Your task to perform on an android device: toggle notifications settings in the gmail app Image 0: 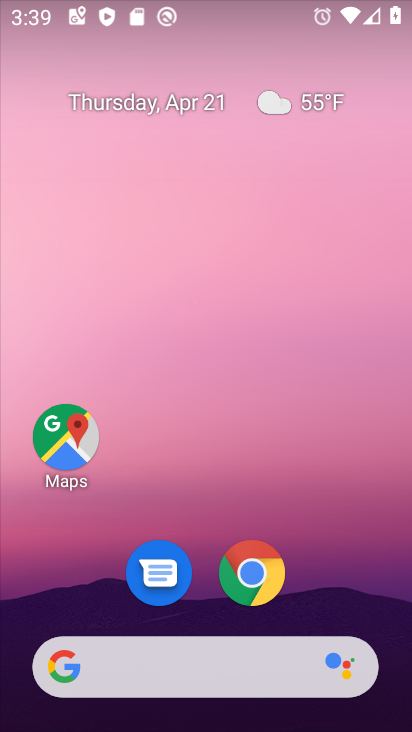
Step 0: drag from (389, 607) to (350, 169)
Your task to perform on an android device: toggle notifications settings in the gmail app Image 1: 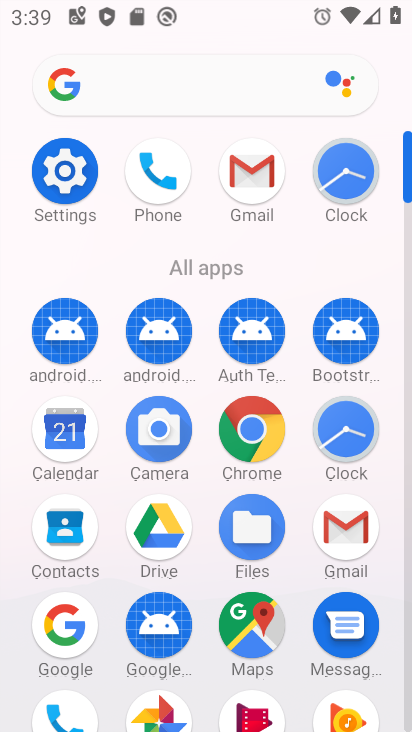
Step 1: click (408, 710)
Your task to perform on an android device: toggle notifications settings in the gmail app Image 2: 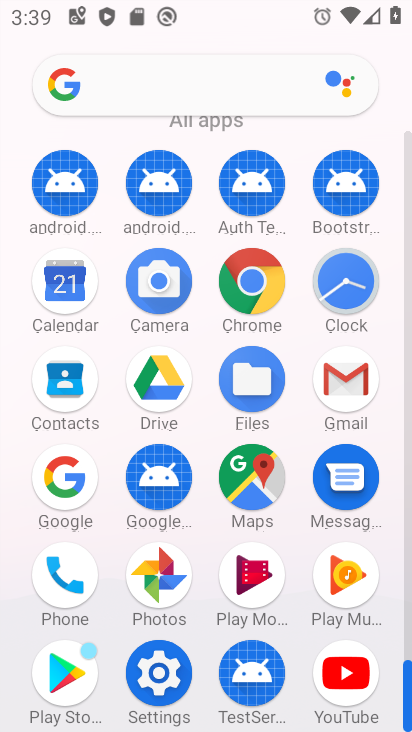
Step 2: click (344, 378)
Your task to perform on an android device: toggle notifications settings in the gmail app Image 3: 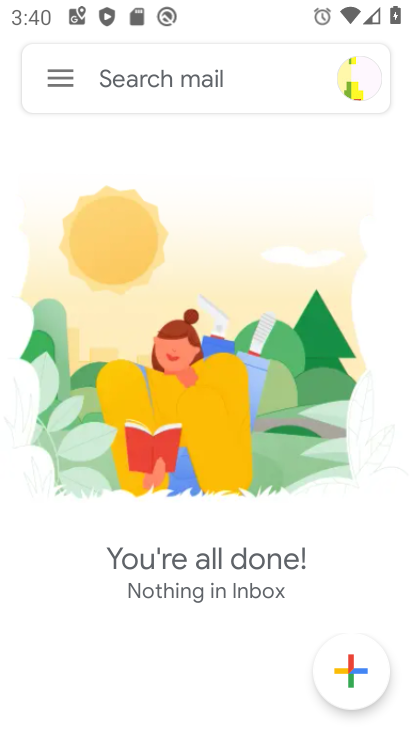
Step 3: click (60, 72)
Your task to perform on an android device: toggle notifications settings in the gmail app Image 4: 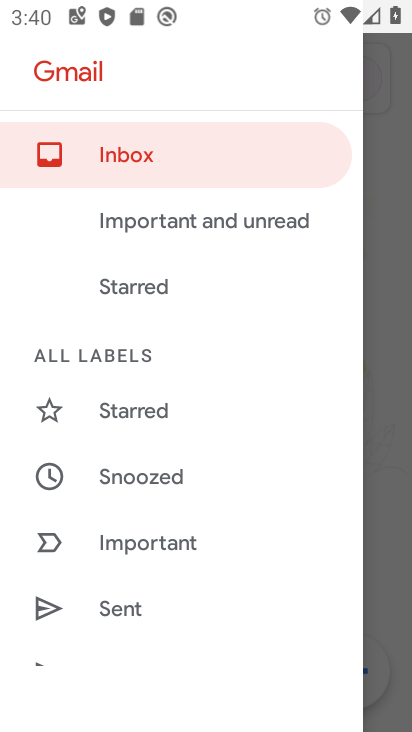
Step 4: drag from (213, 492) to (283, 260)
Your task to perform on an android device: toggle notifications settings in the gmail app Image 5: 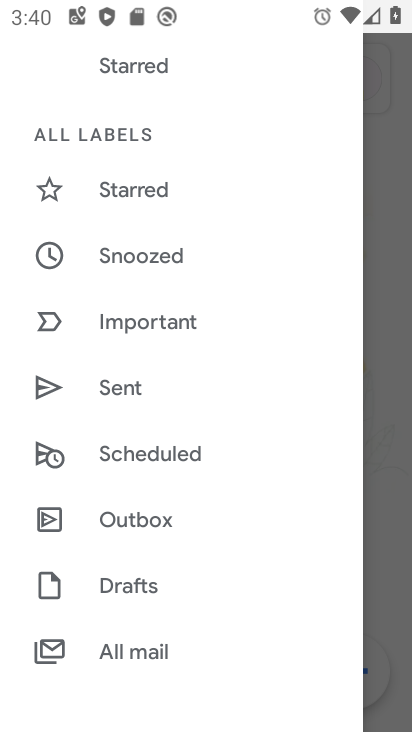
Step 5: drag from (241, 537) to (301, 190)
Your task to perform on an android device: toggle notifications settings in the gmail app Image 6: 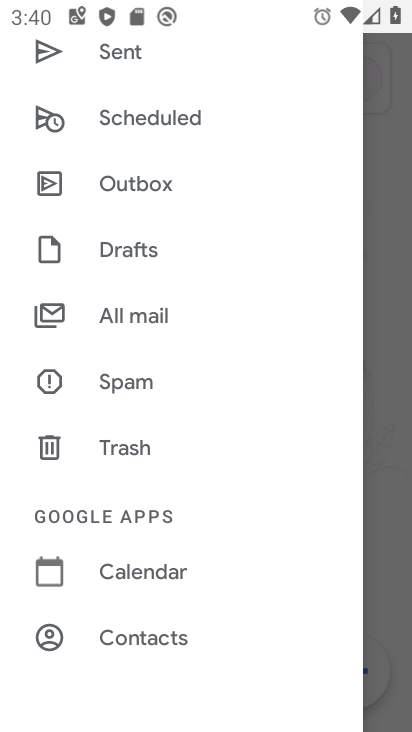
Step 6: drag from (234, 571) to (244, 317)
Your task to perform on an android device: toggle notifications settings in the gmail app Image 7: 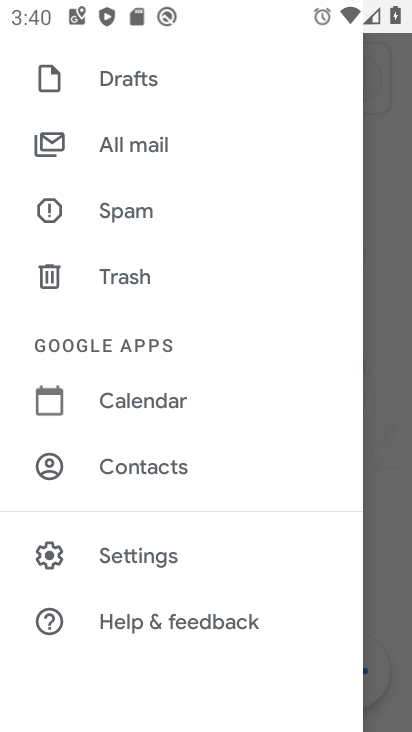
Step 7: click (121, 553)
Your task to perform on an android device: toggle notifications settings in the gmail app Image 8: 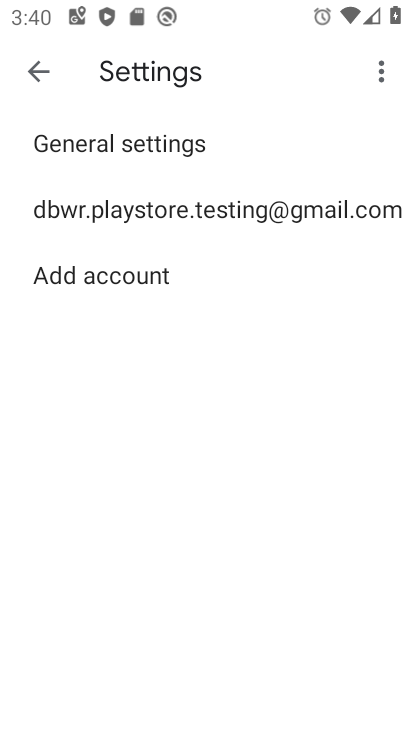
Step 8: click (143, 210)
Your task to perform on an android device: toggle notifications settings in the gmail app Image 9: 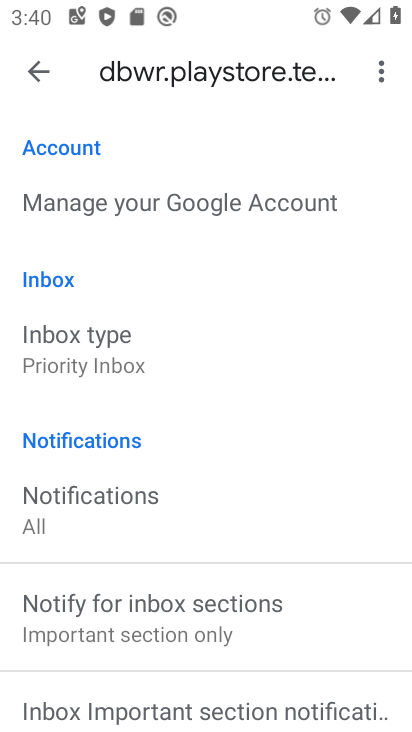
Step 9: drag from (230, 591) to (238, 349)
Your task to perform on an android device: toggle notifications settings in the gmail app Image 10: 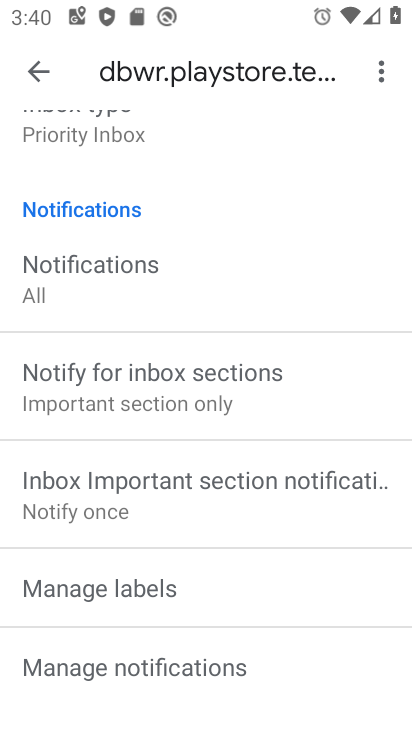
Step 10: click (124, 668)
Your task to perform on an android device: toggle notifications settings in the gmail app Image 11: 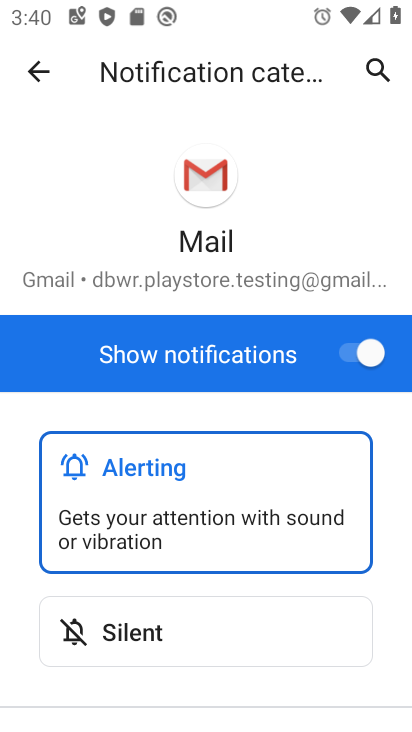
Step 11: click (343, 345)
Your task to perform on an android device: toggle notifications settings in the gmail app Image 12: 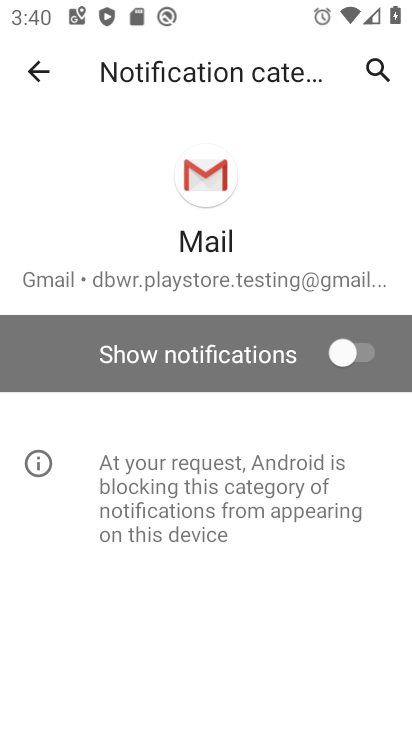
Step 12: task complete